Your task to perform on an android device: Go to Wikipedia Image 0: 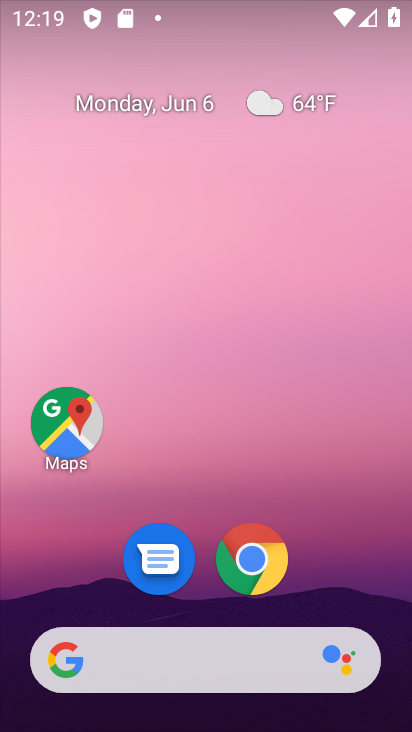
Step 0: drag from (306, 688) to (243, 220)
Your task to perform on an android device: Go to Wikipedia Image 1: 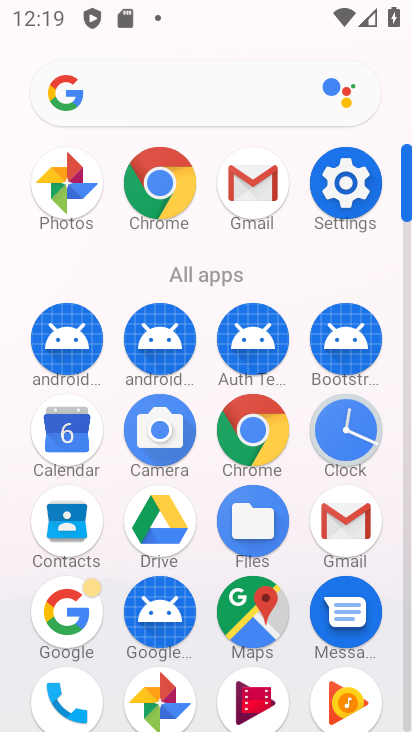
Step 1: click (147, 185)
Your task to perform on an android device: Go to Wikipedia Image 2: 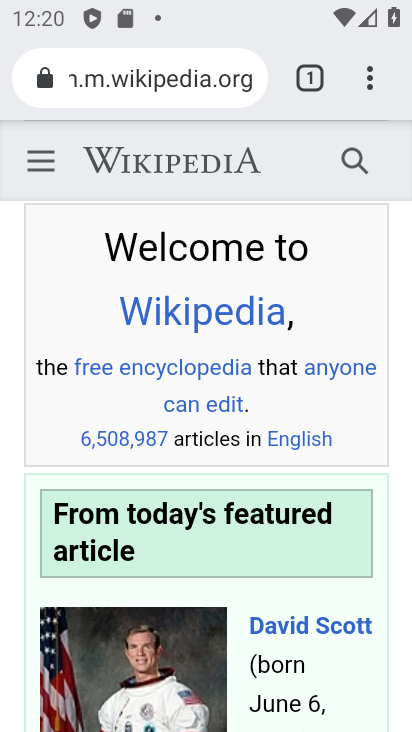
Step 2: click (172, 97)
Your task to perform on an android device: Go to Wikipedia Image 3: 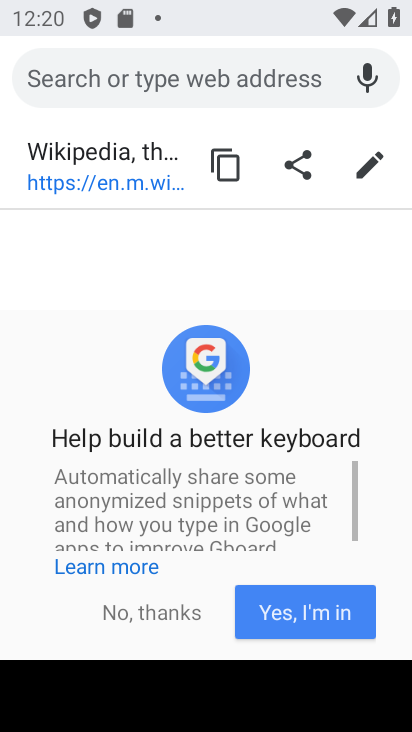
Step 3: click (138, 167)
Your task to perform on an android device: Go to Wikipedia Image 4: 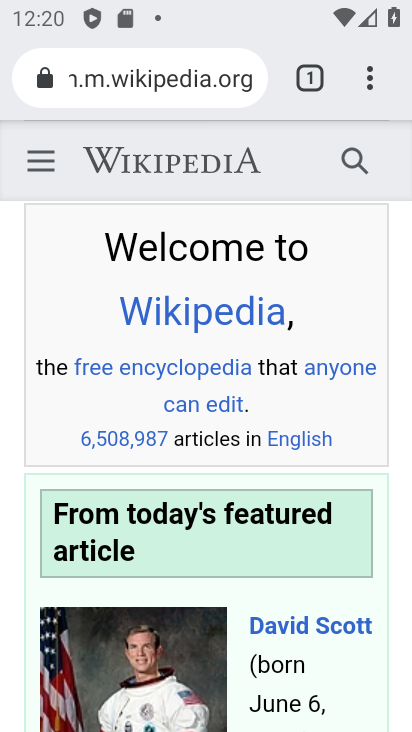
Step 4: task complete